Your task to perform on an android device: Go to ESPN.com Image 0: 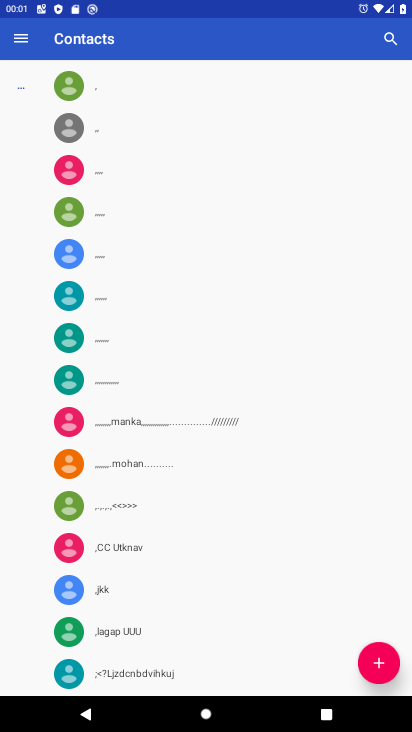
Step 0: press back button
Your task to perform on an android device: Go to ESPN.com Image 1: 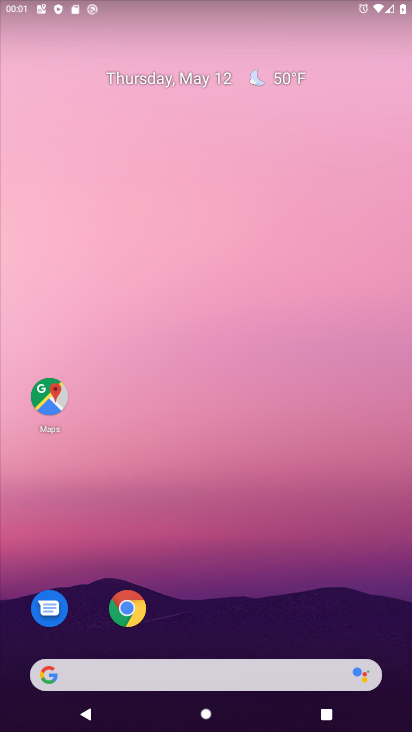
Step 1: click (125, 611)
Your task to perform on an android device: Go to ESPN.com Image 2: 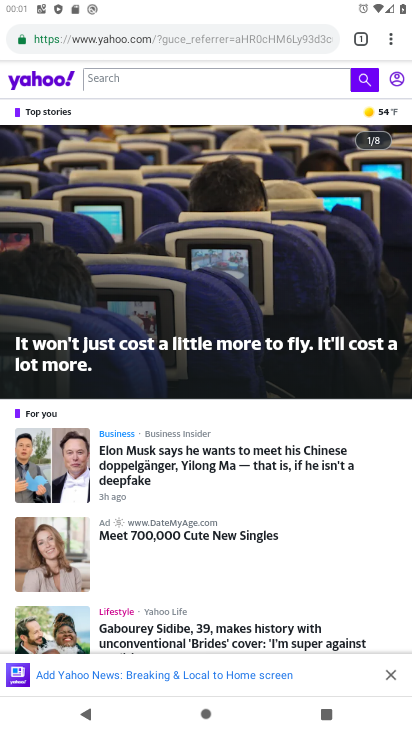
Step 2: click (218, 32)
Your task to perform on an android device: Go to ESPN.com Image 3: 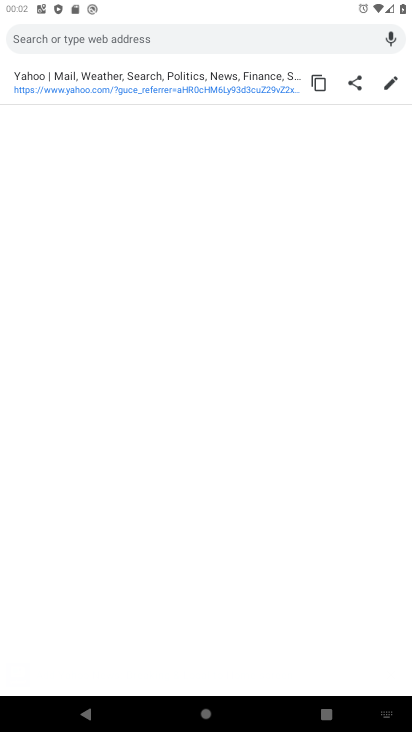
Step 3: type "Espn.com"
Your task to perform on an android device: Go to ESPN.com Image 4: 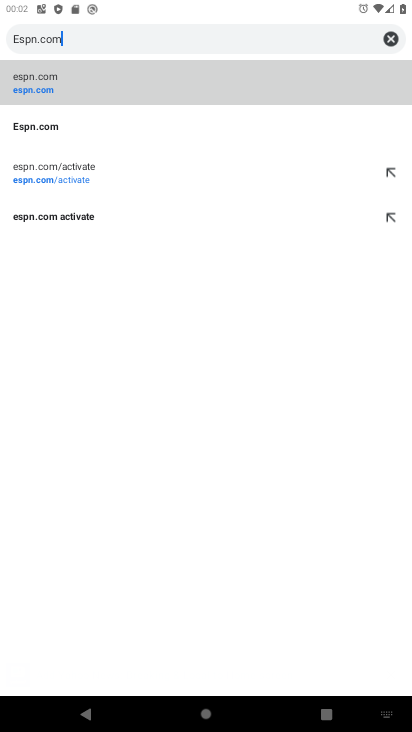
Step 4: click (49, 125)
Your task to perform on an android device: Go to ESPN.com Image 5: 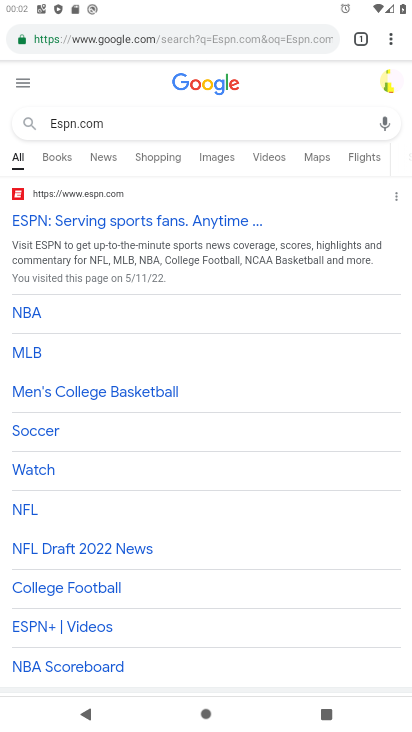
Step 5: click (61, 216)
Your task to perform on an android device: Go to ESPN.com Image 6: 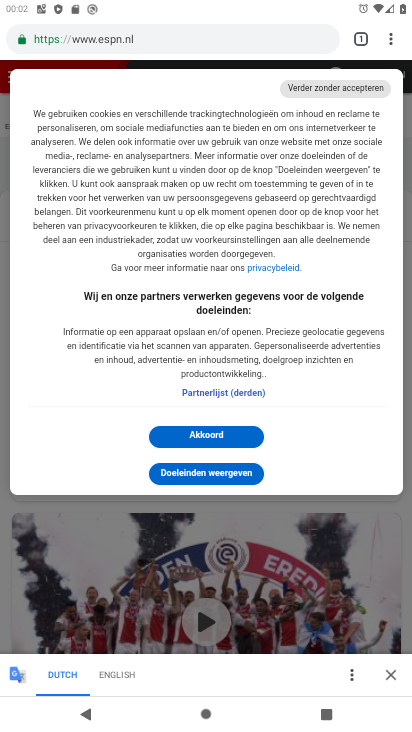
Step 6: task complete